Your task to perform on an android device: What's the weather? Image 0: 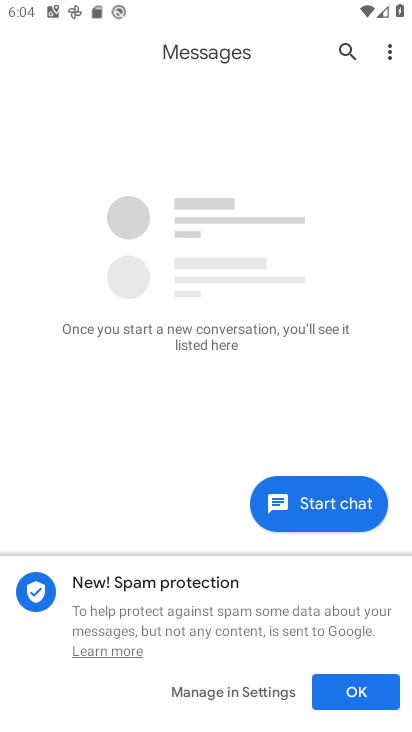
Step 0: drag from (275, 628) to (254, 143)
Your task to perform on an android device: What's the weather? Image 1: 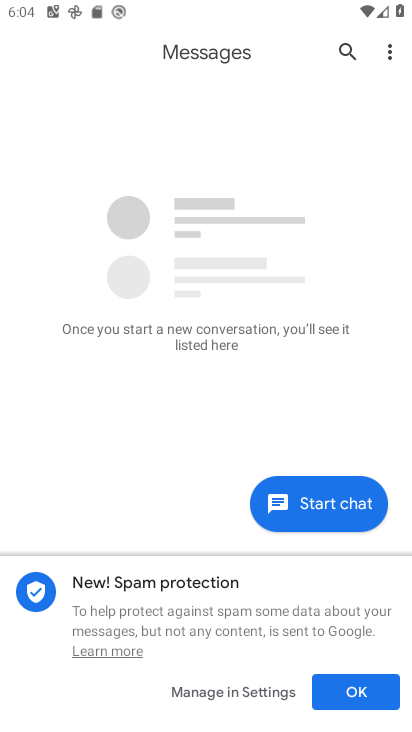
Step 1: press home button
Your task to perform on an android device: What's the weather? Image 2: 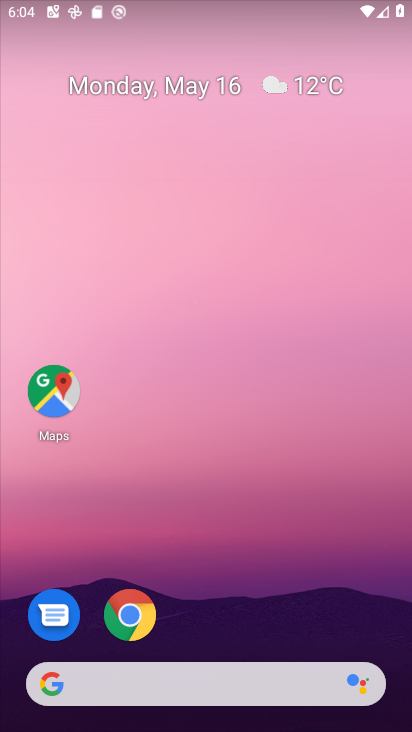
Step 2: drag from (245, 611) to (265, 116)
Your task to perform on an android device: What's the weather? Image 3: 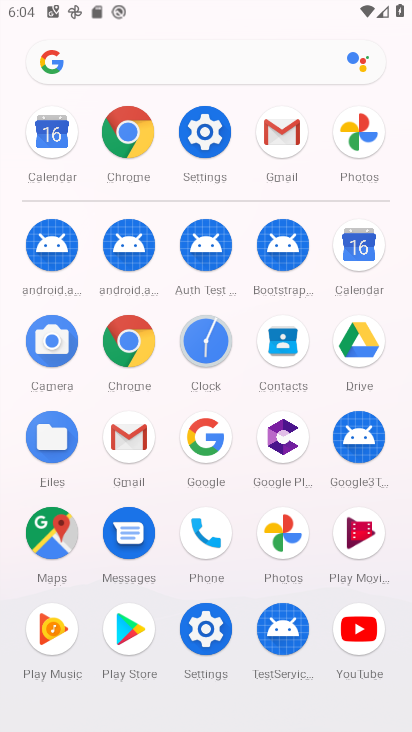
Step 3: click (203, 439)
Your task to perform on an android device: What's the weather? Image 4: 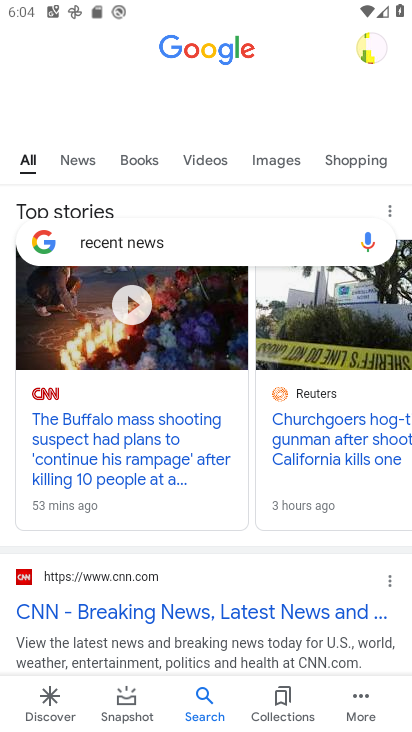
Step 4: click (171, 99)
Your task to perform on an android device: What's the weather? Image 5: 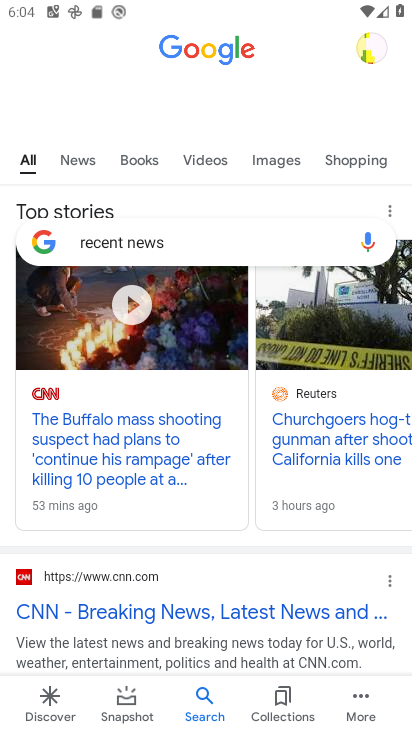
Step 5: click (59, 701)
Your task to perform on an android device: What's the weather? Image 6: 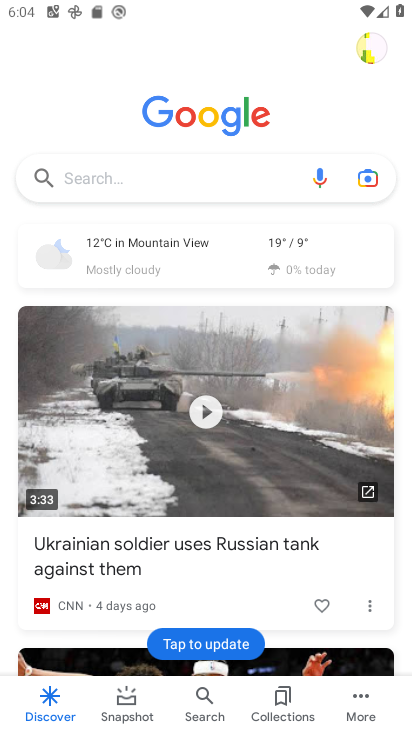
Step 6: click (139, 187)
Your task to perform on an android device: What's the weather? Image 7: 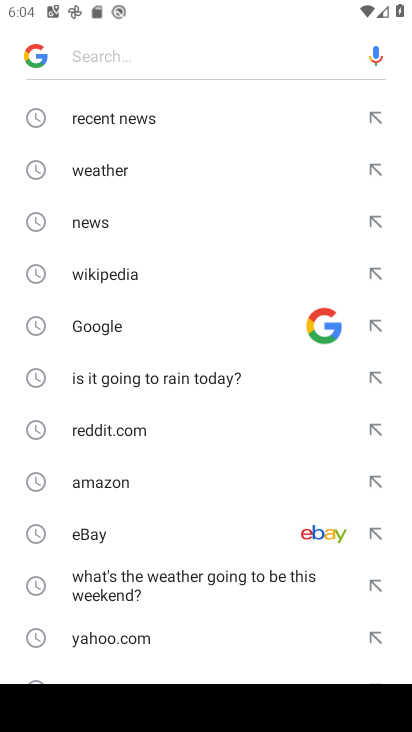
Step 7: click (114, 171)
Your task to perform on an android device: What's the weather? Image 8: 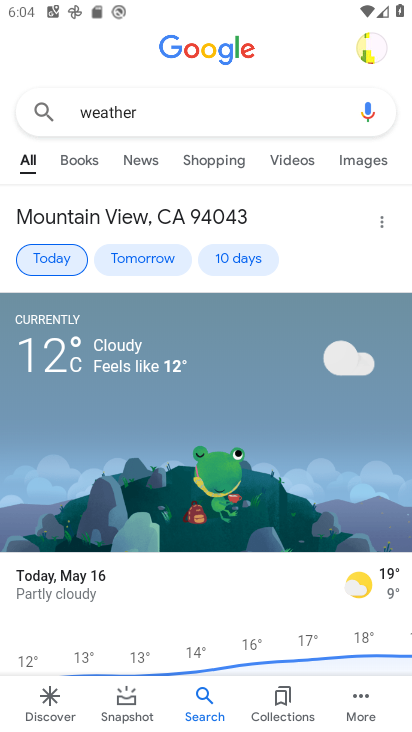
Step 8: task complete